Your task to perform on an android device: find which apps use the phone's location Image 0: 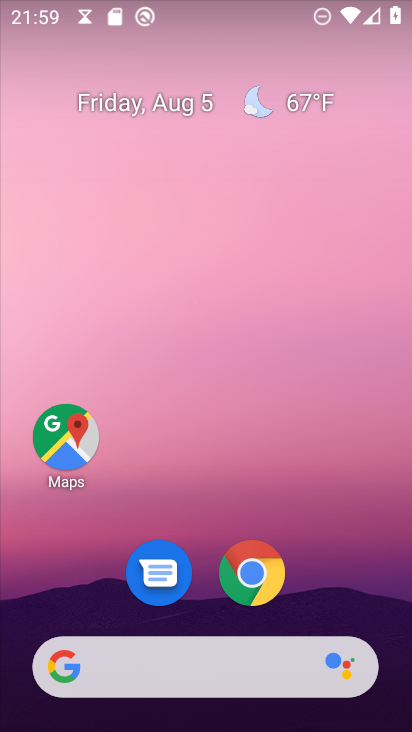
Step 0: drag from (155, 681) to (272, 90)
Your task to perform on an android device: find which apps use the phone's location Image 1: 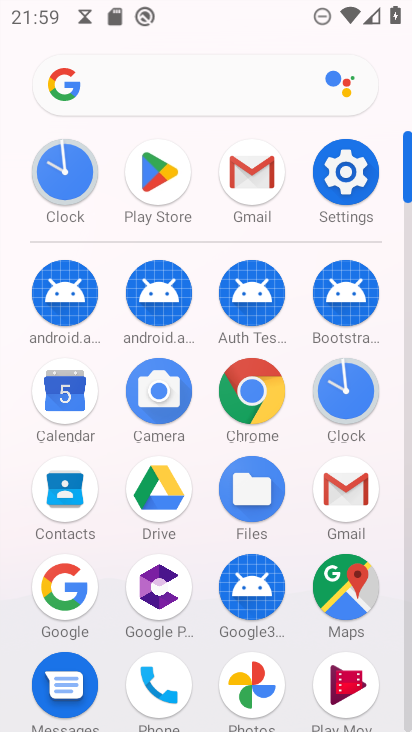
Step 1: click (348, 172)
Your task to perform on an android device: find which apps use the phone's location Image 2: 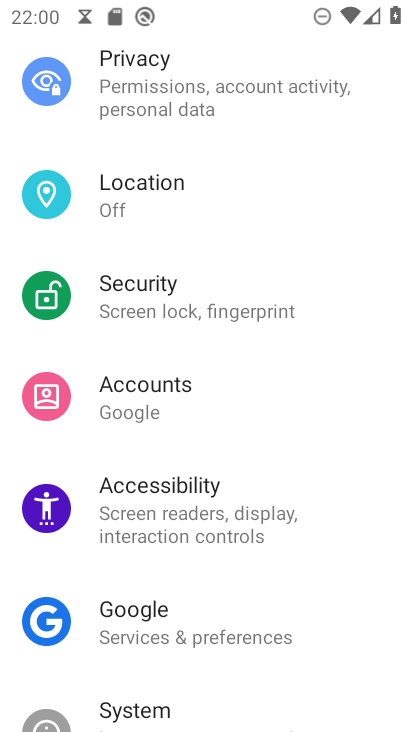
Step 2: drag from (212, 603) to (241, 556)
Your task to perform on an android device: find which apps use the phone's location Image 3: 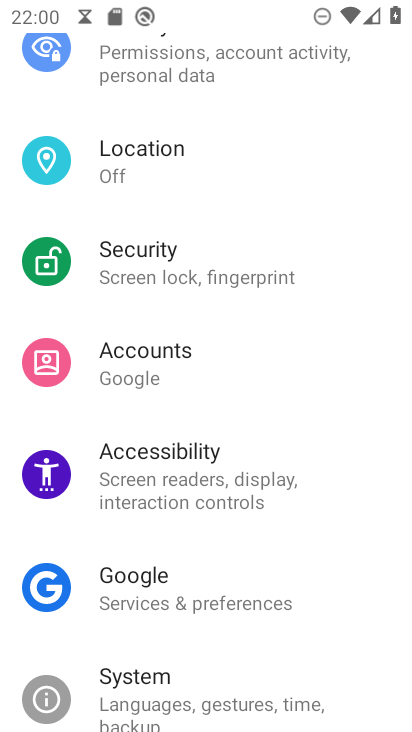
Step 3: click (126, 164)
Your task to perform on an android device: find which apps use the phone's location Image 4: 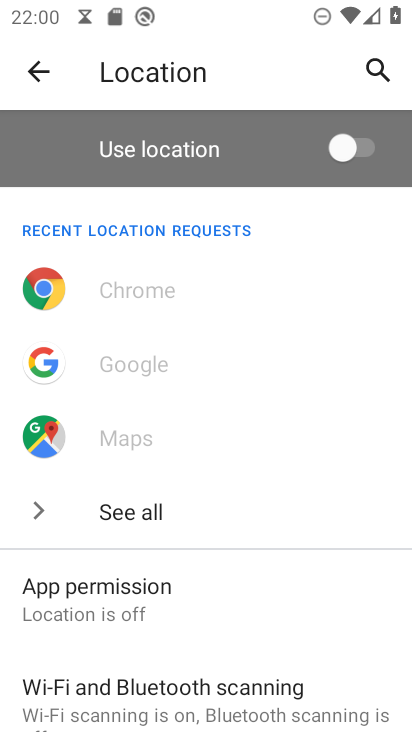
Step 4: drag from (138, 594) to (210, 490)
Your task to perform on an android device: find which apps use the phone's location Image 5: 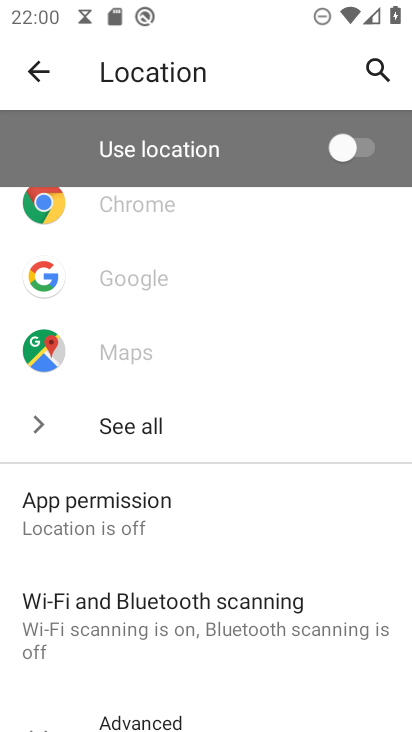
Step 5: click (180, 509)
Your task to perform on an android device: find which apps use the phone's location Image 6: 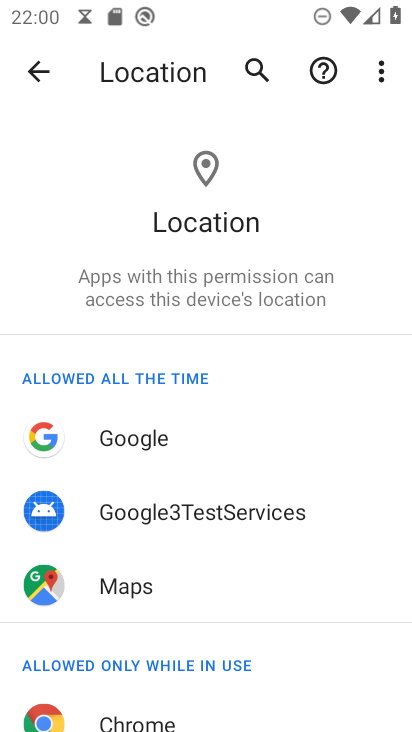
Step 6: click (125, 581)
Your task to perform on an android device: find which apps use the phone's location Image 7: 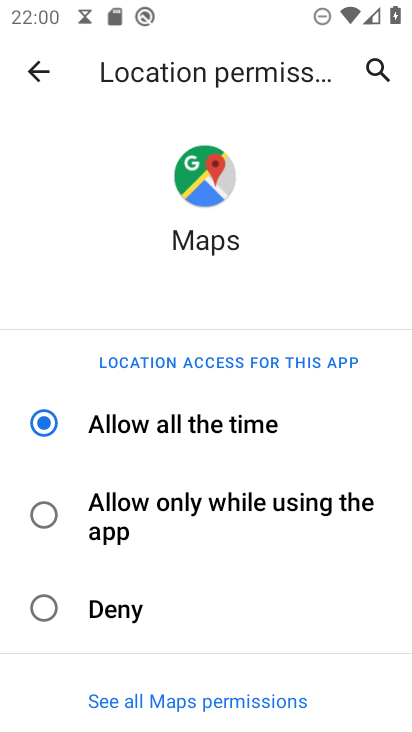
Step 7: task complete